Your task to perform on an android device: turn off airplane mode Image 0: 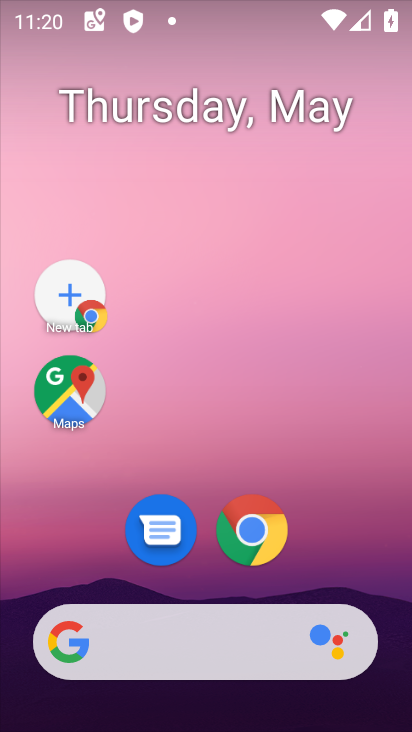
Step 0: drag from (277, 701) to (261, 214)
Your task to perform on an android device: turn off airplane mode Image 1: 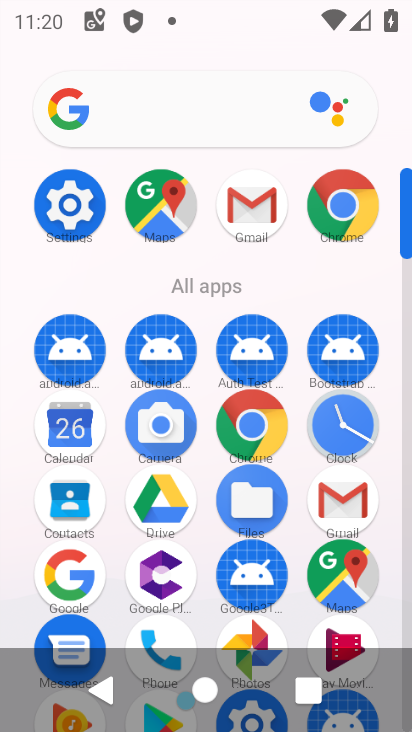
Step 1: click (63, 186)
Your task to perform on an android device: turn off airplane mode Image 2: 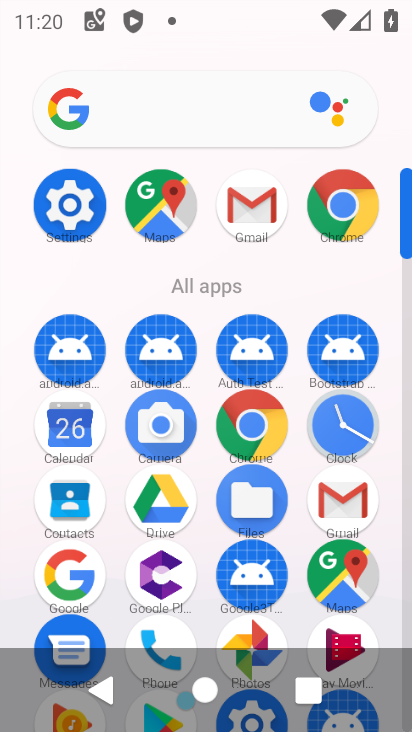
Step 2: click (71, 190)
Your task to perform on an android device: turn off airplane mode Image 3: 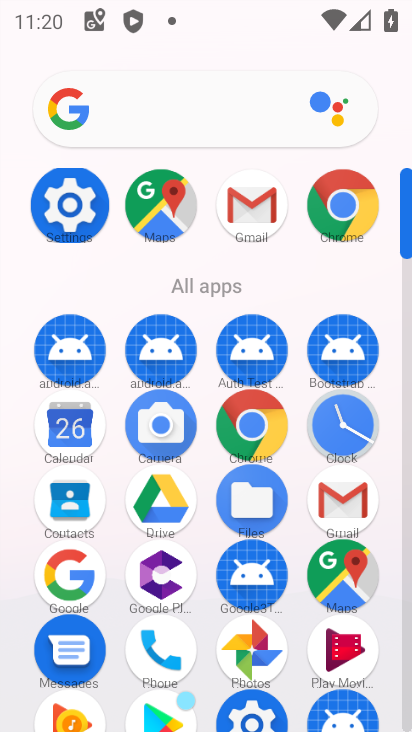
Step 3: click (76, 197)
Your task to perform on an android device: turn off airplane mode Image 4: 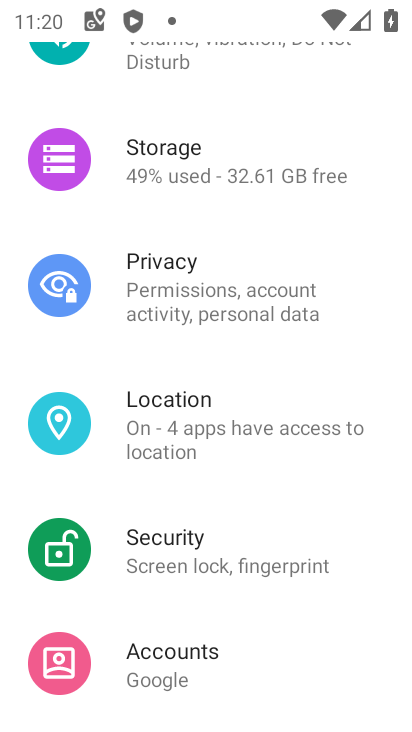
Step 4: drag from (199, 145) to (211, 601)
Your task to perform on an android device: turn off airplane mode Image 5: 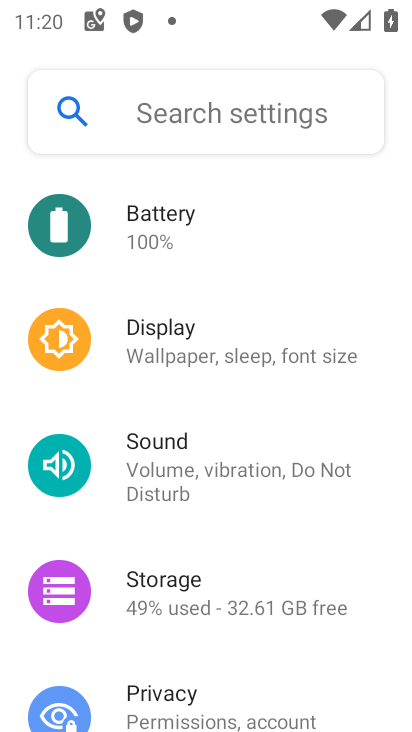
Step 5: drag from (183, 214) to (205, 540)
Your task to perform on an android device: turn off airplane mode Image 6: 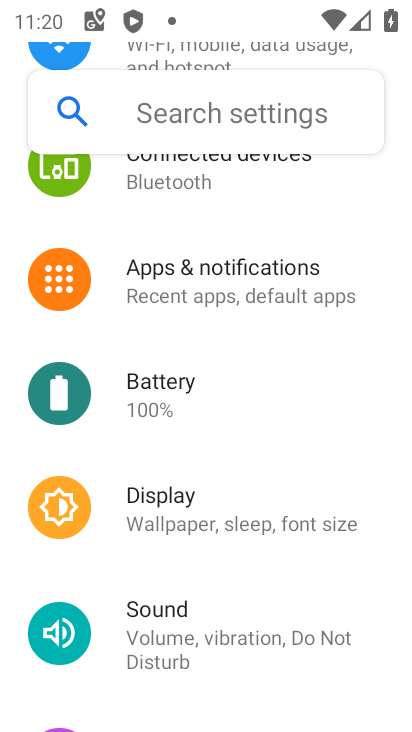
Step 6: drag from (225, 354) to (195, 656)
Your task to perform on an android device: turn off airplane mode Image 7: 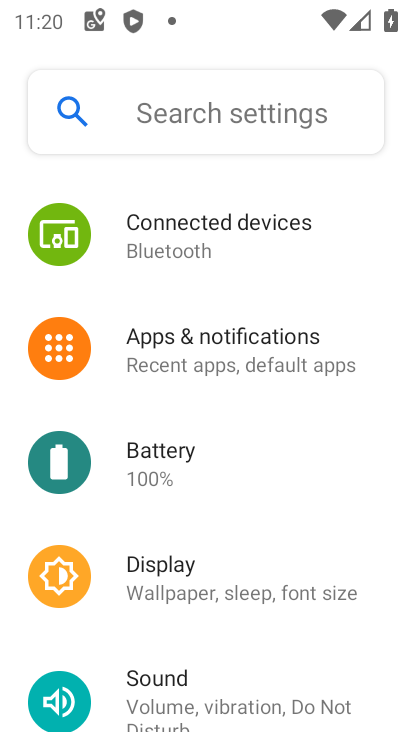
Step 7: drag from (222, 342) to (164, 726)
Your task to perform on an android device: turn off airplane mode Image 8: 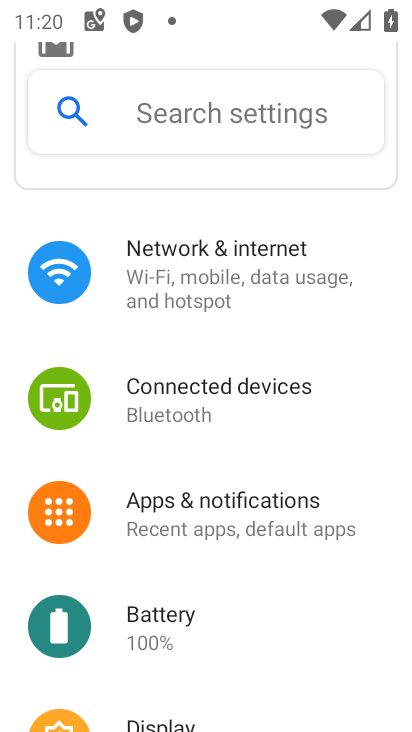
Step 8: click (216, 280)
Your task to perform on an android device: turn off airplane mode Image 9: 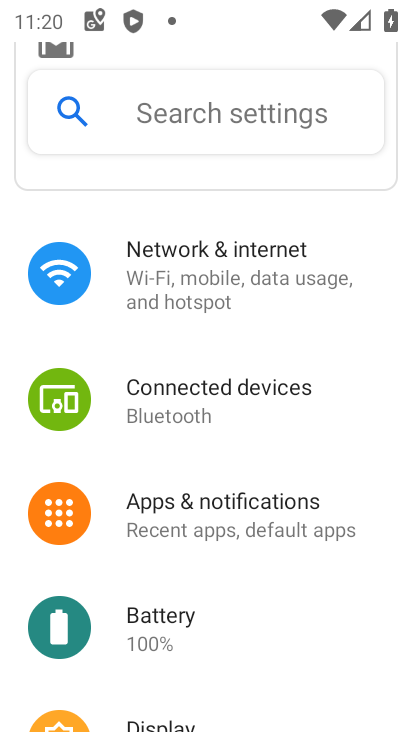
Step 9: click (221, 309)
Your task to perform on an android device: turn off airplane mode Image 10: 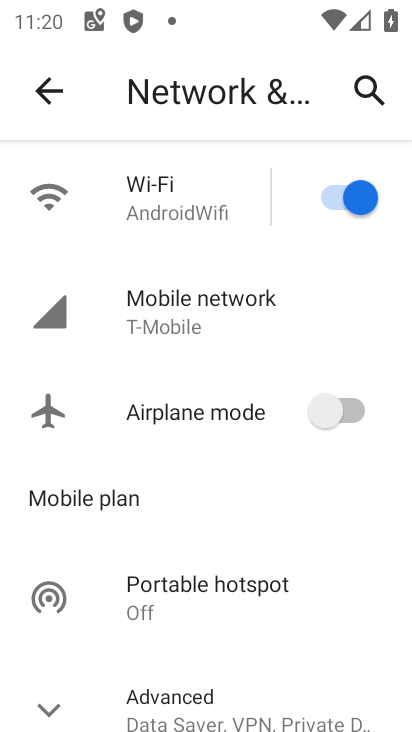
Step 10: click (330, 407)
Your task to perform on an android device: turn off airplane mode Image 11: 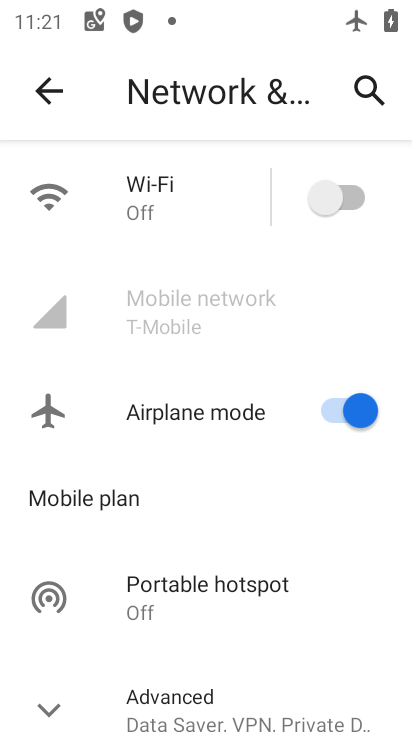
Step 11: click (342, 409)
Your task to perform on an android device: turn off airplane mode Image 12: 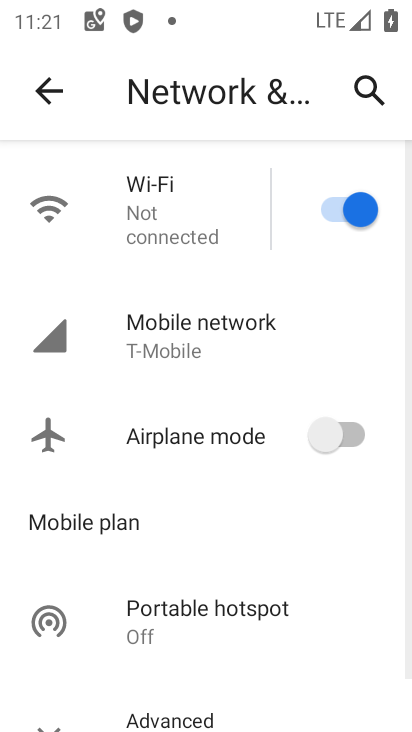
Step 12: task complete